Your task to perform on an android device: change the clock display to show seconds Image 0: 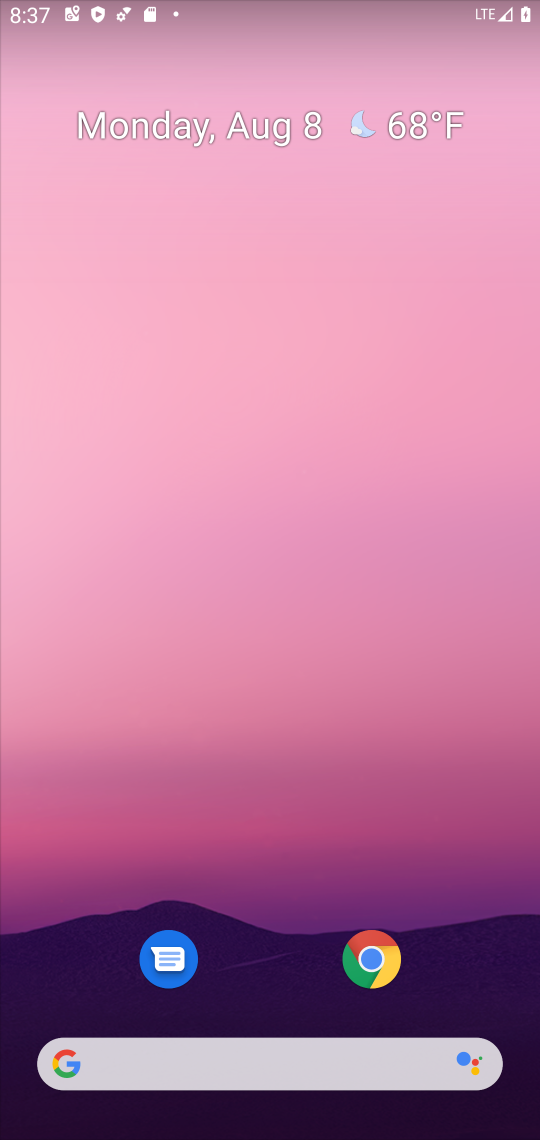
Step 0: drag from (496, 999) to (216, 15)
Your task to perform on an android device: change the clock display to show seconds Image 1: 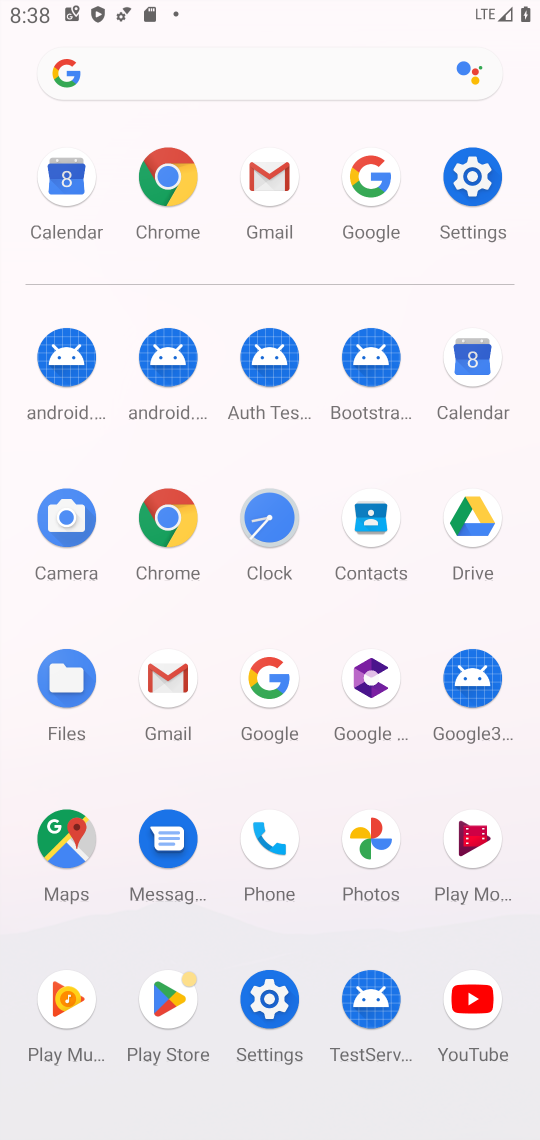
Step 1: click (278, 540)
Your task to perform on an android device: change the clock display to show seconds Image 2: 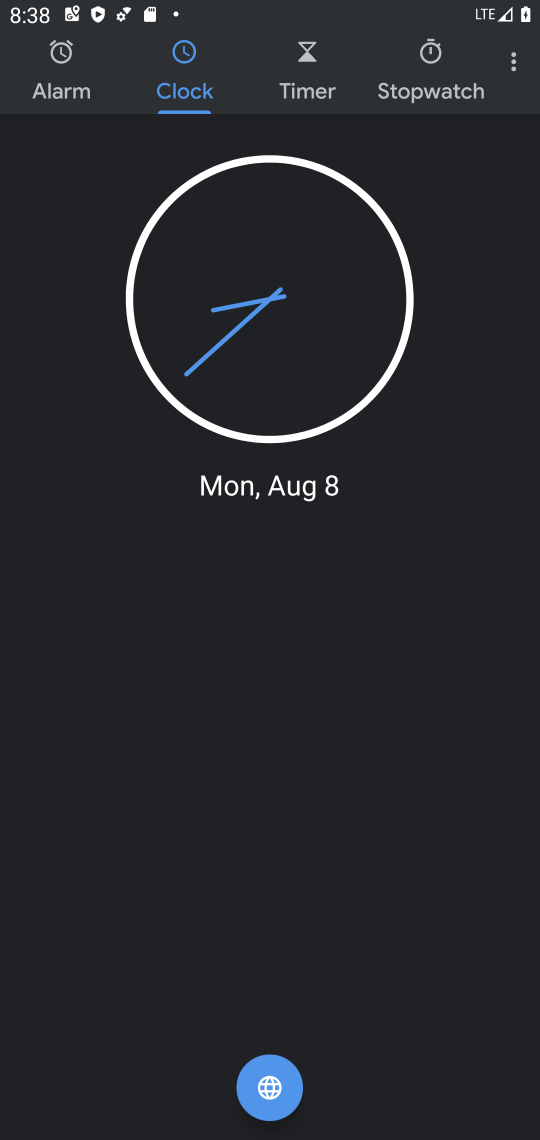
Step 2: click (513, 57)
Your task to perform on an android device: change the clock display to show seconds Image 3: 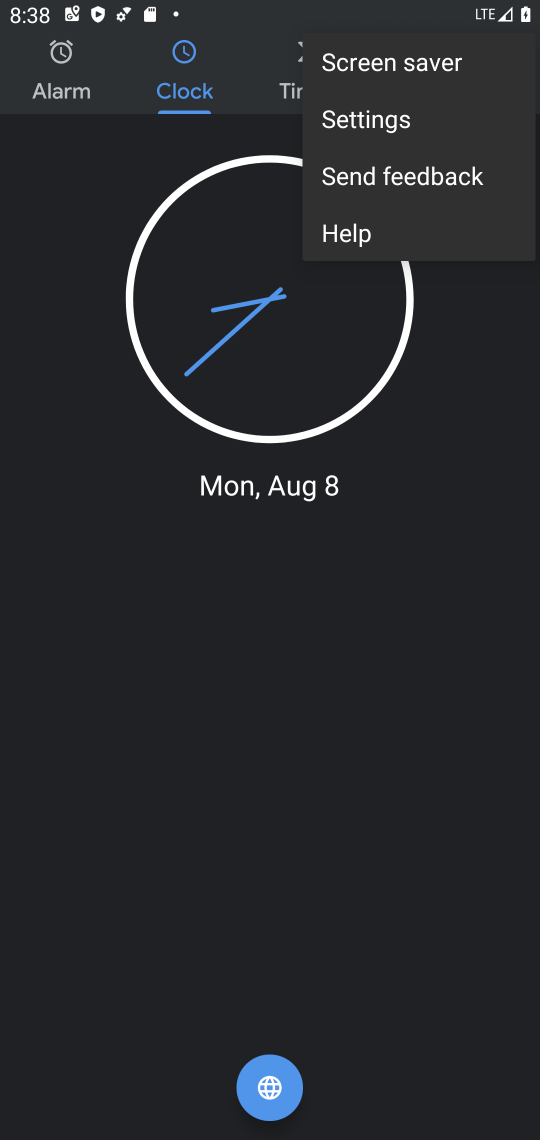
Step 3: click (418, 120)
Your task to perform on an android device: change the clock display to show seconds Image 4: 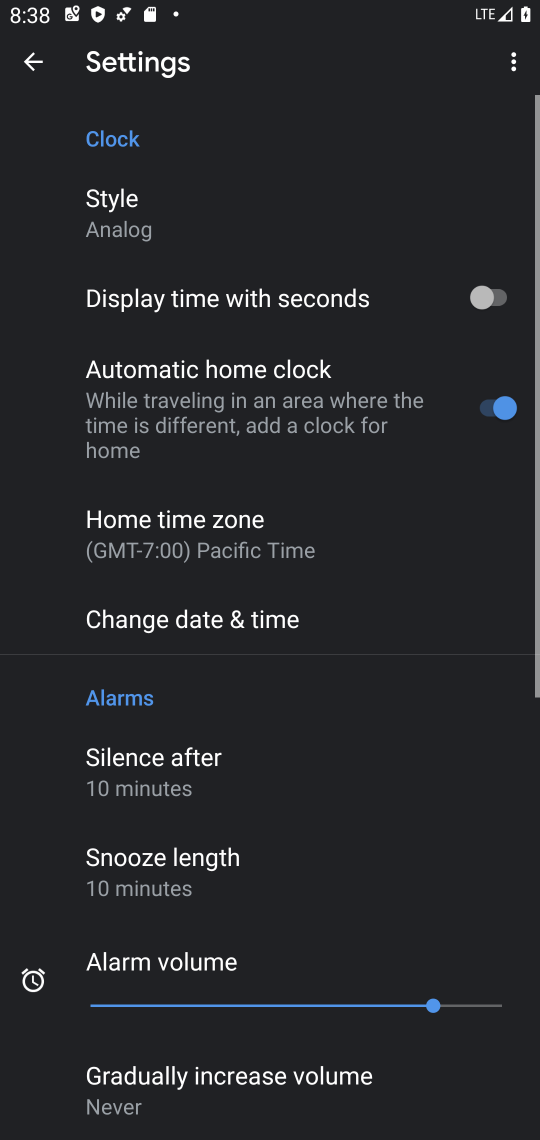
Step 4: click (202, 215)
Your task to perform on an android device: change the clock display to show seconds Image 5: 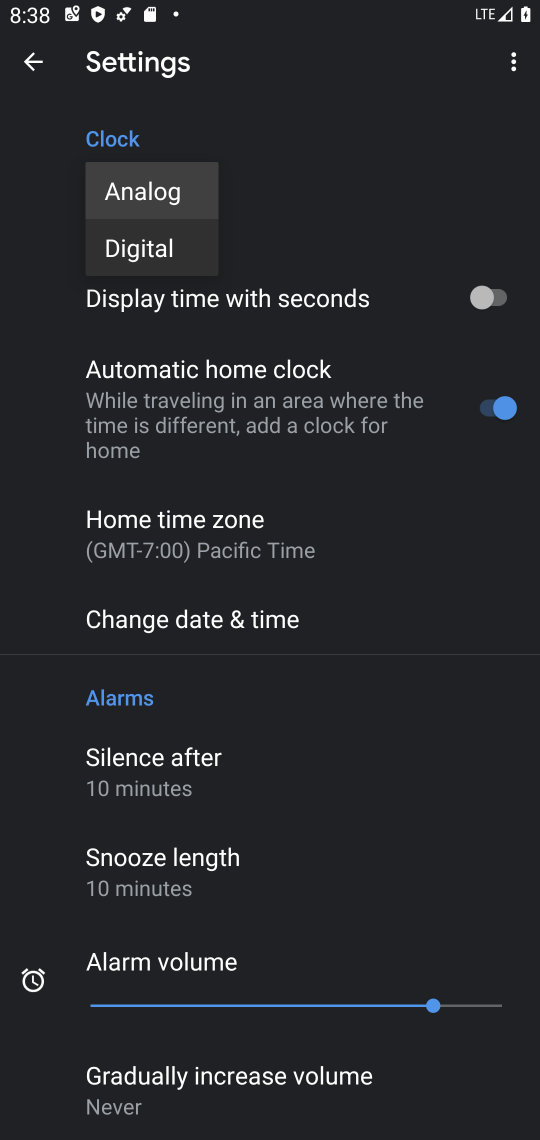
Step 5: click (496, 292)
Your task to perform on an android device: change the clock display to show seconds Image 6: 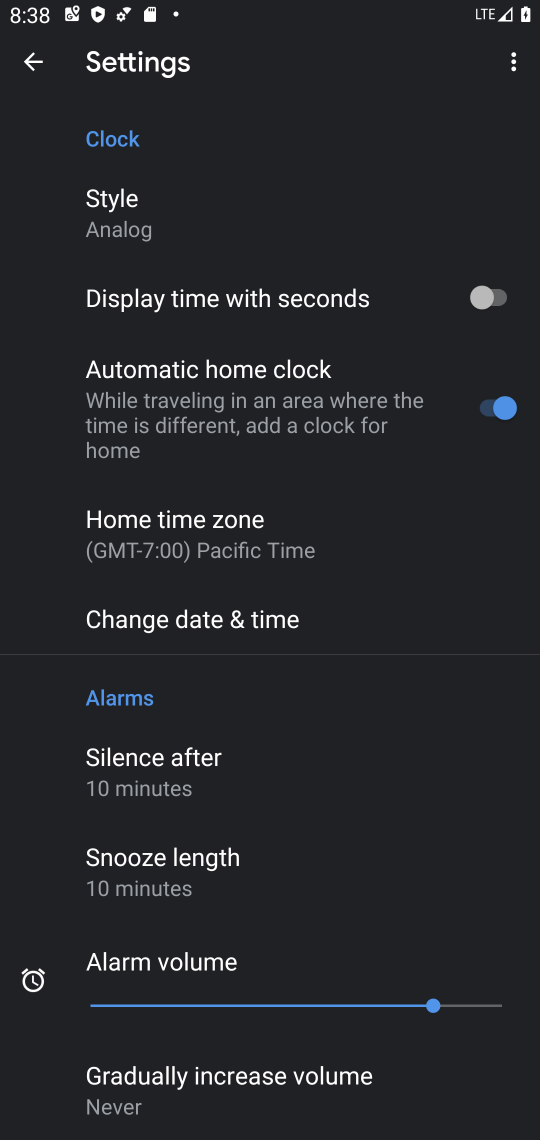
Step 6: task complete